Your task to perform on an android device: turn off smart reply in the gmail app Image 0: 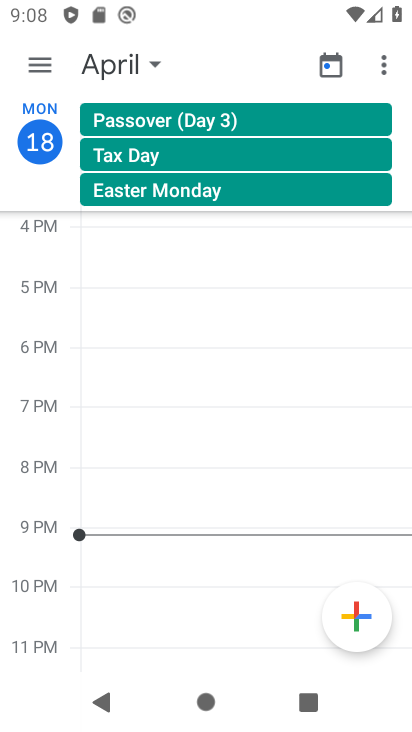
Step 0: press back button
Your task to perform on an android device: turn off smart reply in the gmail app Image 1: 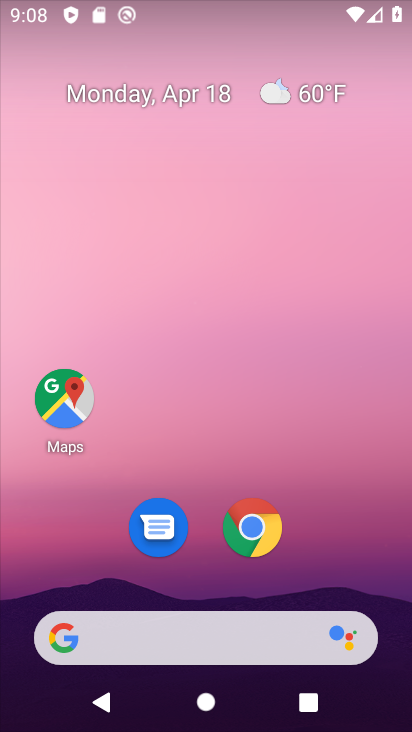
Step 1: drag from (145, 569) to (231, 207)
Your task to perform on an android device: turn off smart reply in the gmail app Image 2: 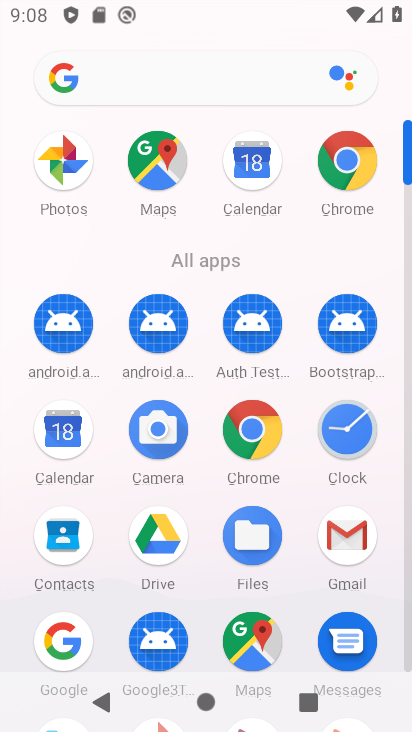
Step 2: click (340, 543)
Your task to perform on an android device: turn off smart reply in the gmail app Image 3: 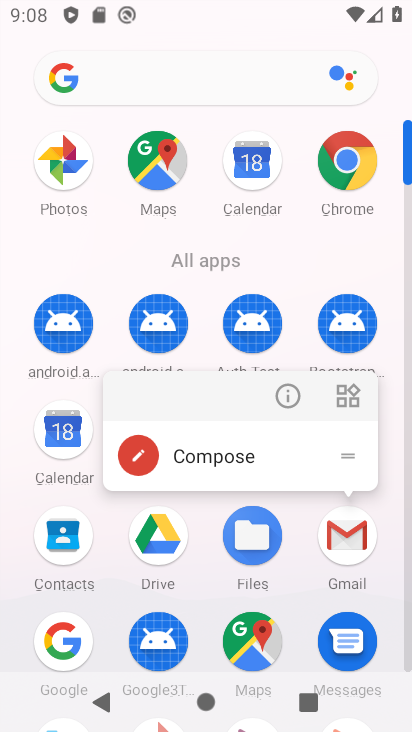
Step 3: click (341, 543)
Your task to perform on an android device: turn off smart reply in the gmail app Image 4: 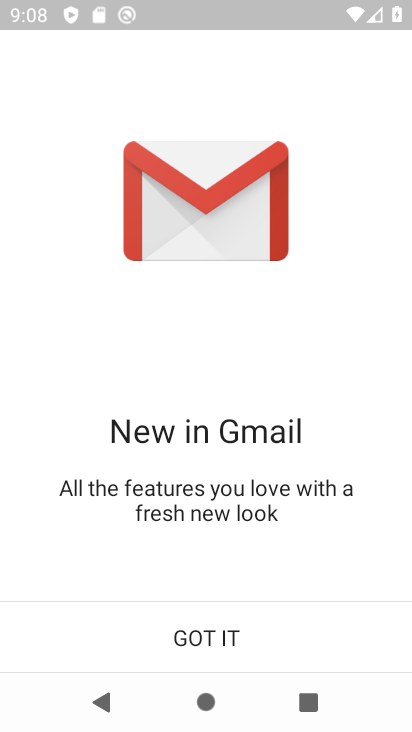
Step 4: click (224, 648)
Your task to perform on an android device: turn off smart reply in the gmail app Image 5: 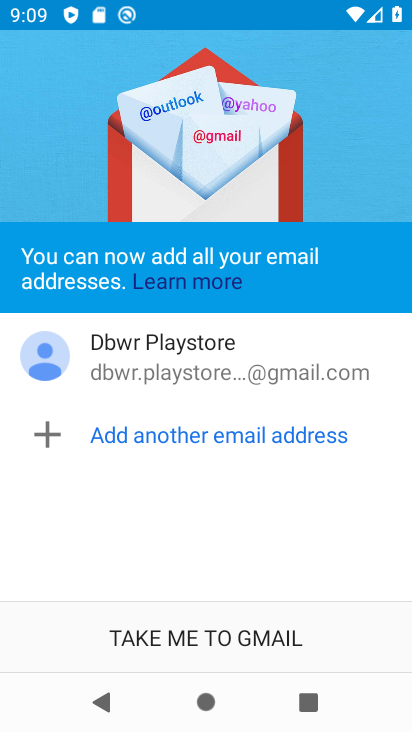
Step 5: click (181, 652)
Your task to perform on an android device: turn off smart reply in the gmail app Image 6: 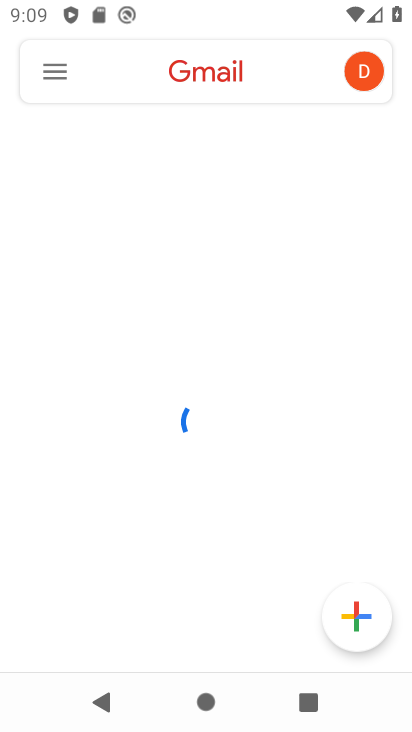
Step 6: click (49, 77)
Your task to perform on an android device: turn off smart reply in the gmail app Image 7: 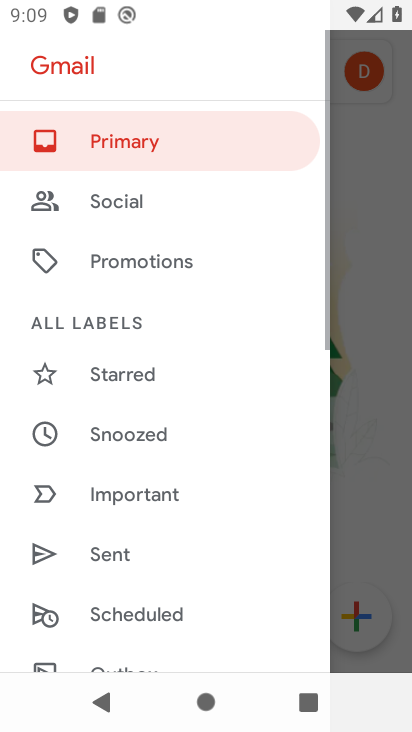
Step 7: drag from (121, 581) to (260, 116)
Your task to perform on an android device: turn off smart reply in the gmail app Image 8: 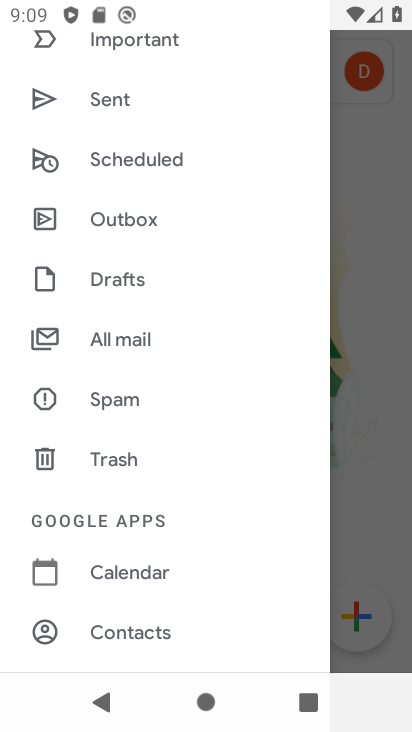
Step 8: drag from (148, 599) to (263, 177)
Your task to perform on an android device: turn off smart reply in the gmail app Image 9: 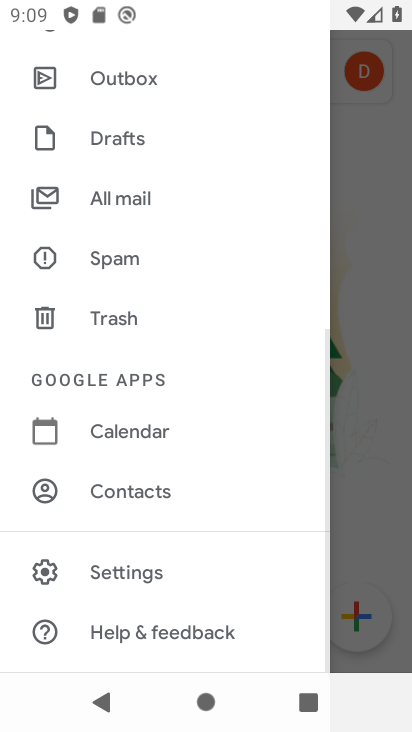
Step 9: click (170, 573)
Your task to perform on an android device: turn off smart reply in the gmail app Image 10: 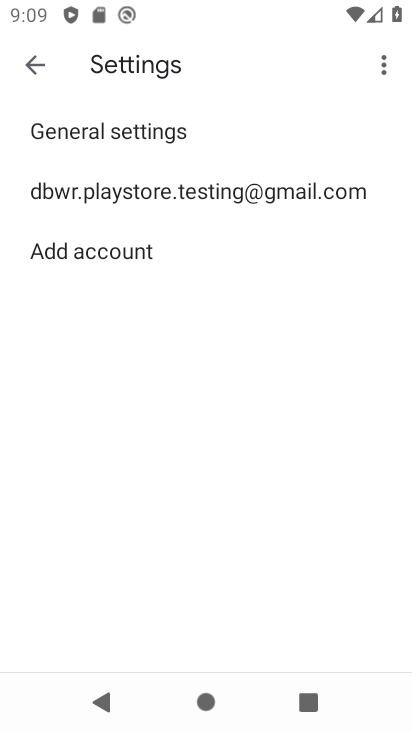
Step 10: click (272, 187)
Your task to perform on an android device: turn off smart reply in the gmail app Image 11: 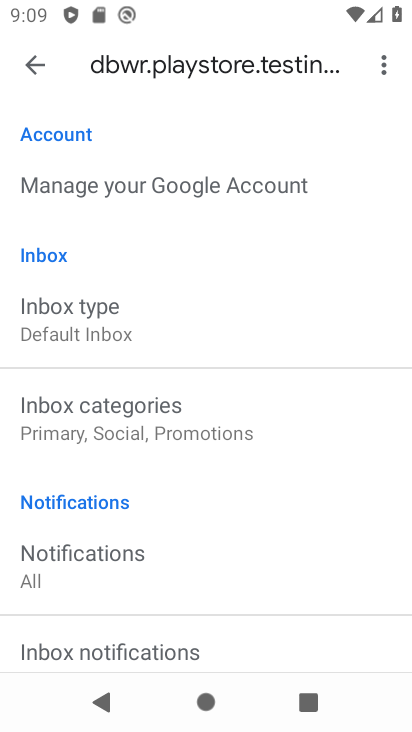
Step 11: drag from (183, 622) to (363, 152)
Your task to perform on an android device: turn off smart reply in the gmail app Image 12: 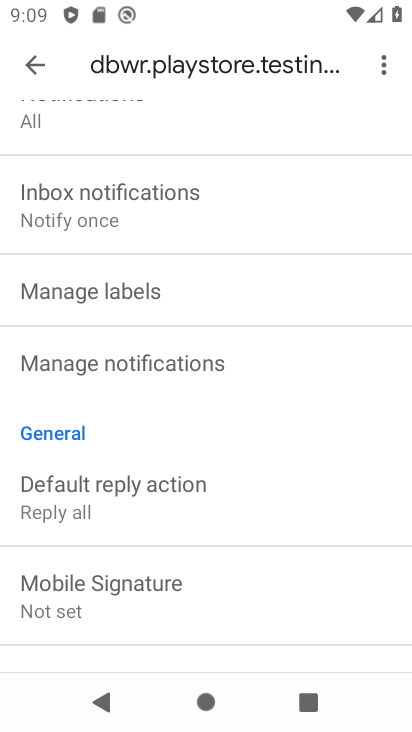
Step 12: drag from (216, 496) to (366, 140)
Your task to perform on an android device: turn off smart reply in the gmail app Image 13: 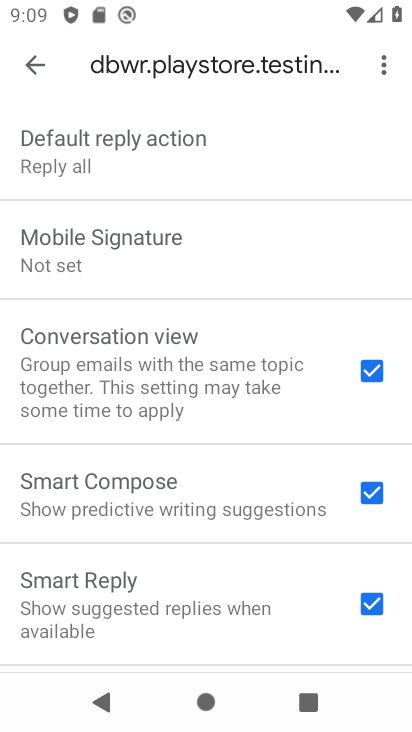
Step 13: click (377, 496)
Your task to perform on an android device: turn off smart reply in the gmail app Image 14: 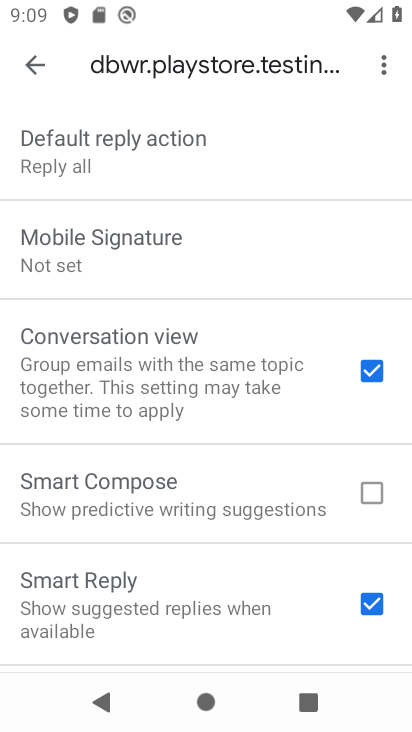
Step 14: task complete